Your task to perform on an android device: Open the calendar app, open the side menu, and click the "Day" option Image 0: 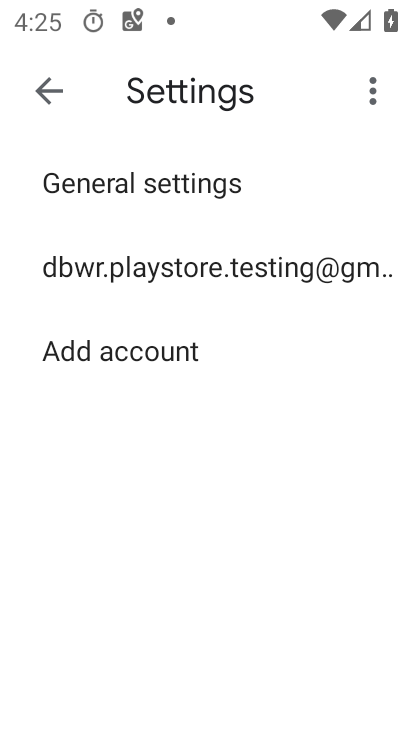
Step 0: press home button
Your task to perform on an android device: Open the calendar app, open the side menu, and click the "Day" option Image 1: 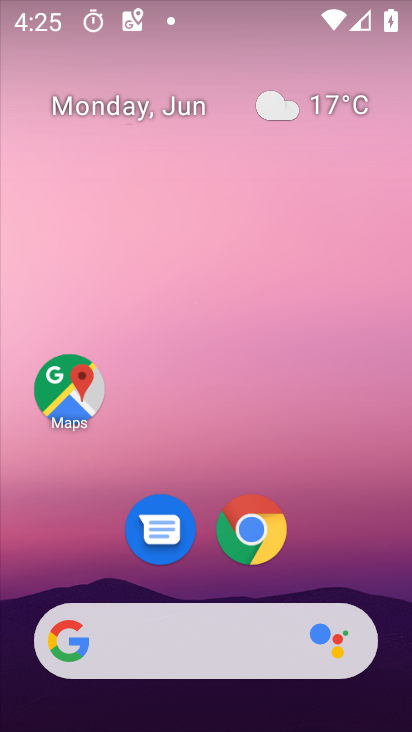
Step 1: drag from (362, 559) to (283, 40)
Your task to perform on an android device: Open the calendar app, open the side menu, and click the "Day" option Image 2: 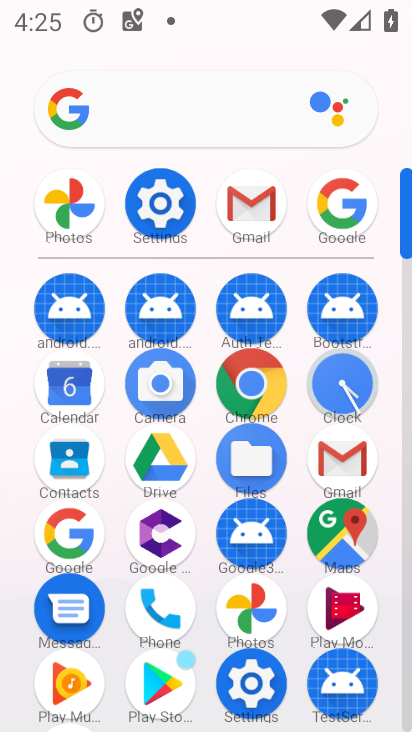
Step 2: click (71, 389)
Your task to perform on an android device: Open the calendar app, open the side menu, and click the "Day" option Image 3: 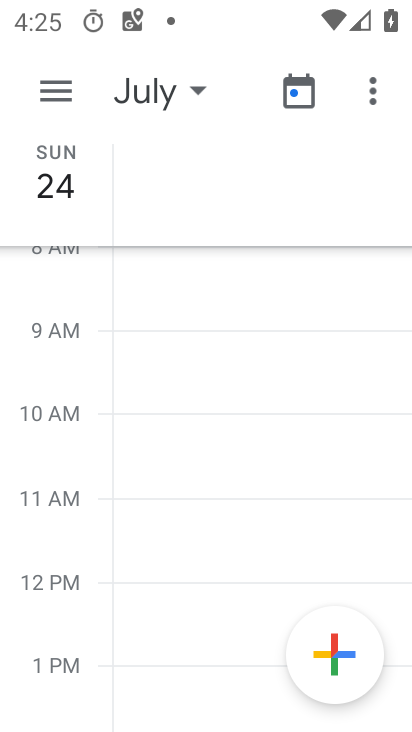
Step 3: click (62, 84)
Your task to perform on an android device: Open the calendar app, open the side menu, and click the "Day" option Image 4: 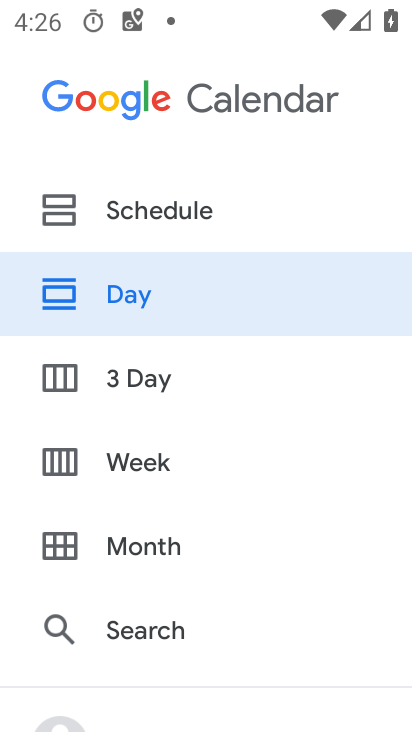
Step 4: click (203, 322)
Your task to perform on an android device: Open the calendar app, open the side menu, and click the "Day" option Image 5: 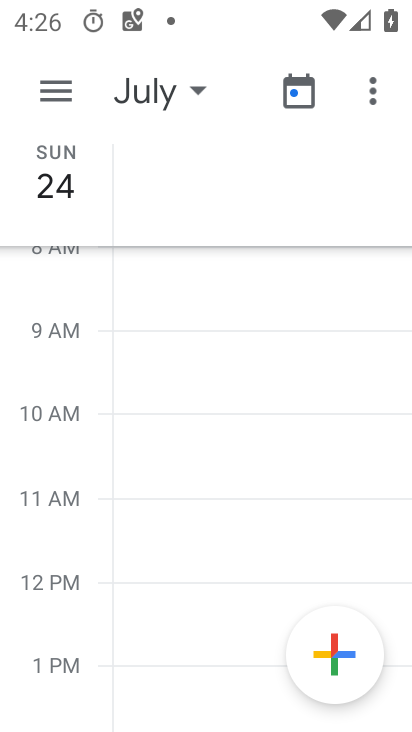
Step 5: task complete